Your task to perform on an android device: check storage Image 0: 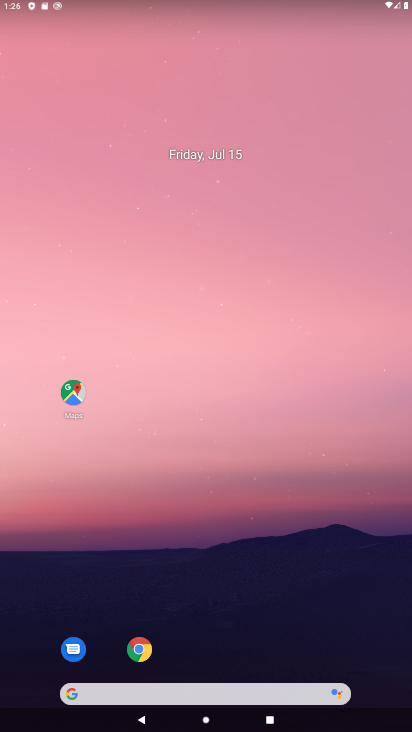
Step 0: drag from (229, 639) to (138, 152)
Your task to perform on an android device: check storage Image 1: 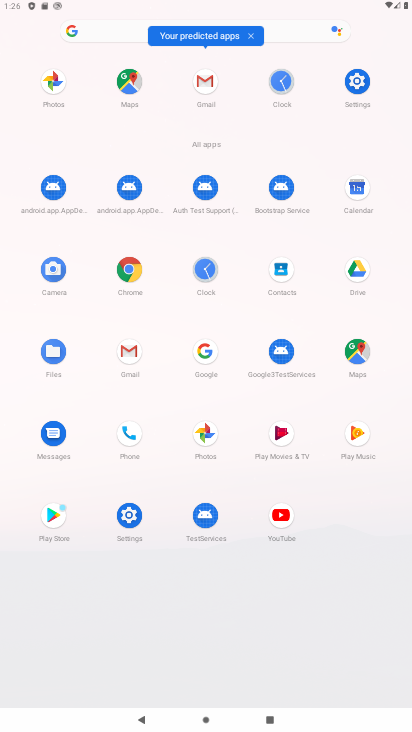
Step 1: click (359, 86)
Your task to perform on an android device: check storage Image 2: 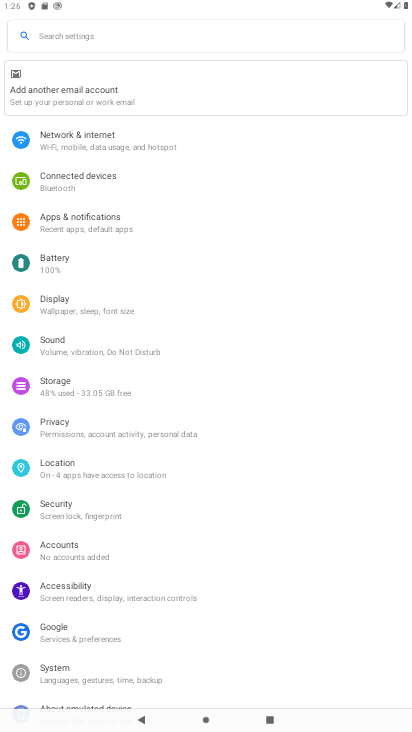
Step 2: click (104, 387)
Your task to perform on an android device: check storage Image 3: 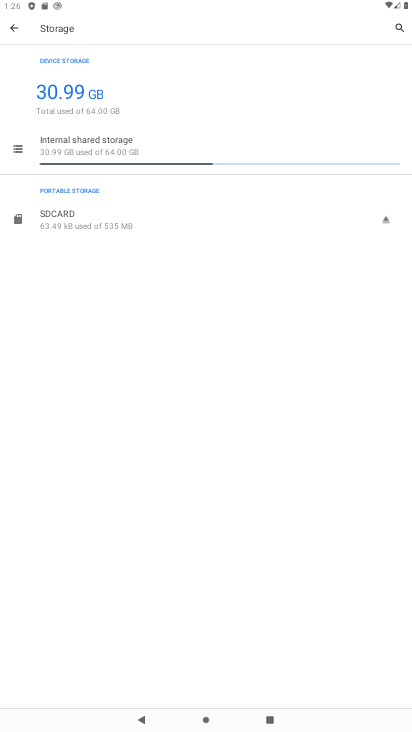
Step 3: task complete